Your task to perform on an android device: turn on translation in the chrome app Image 0: 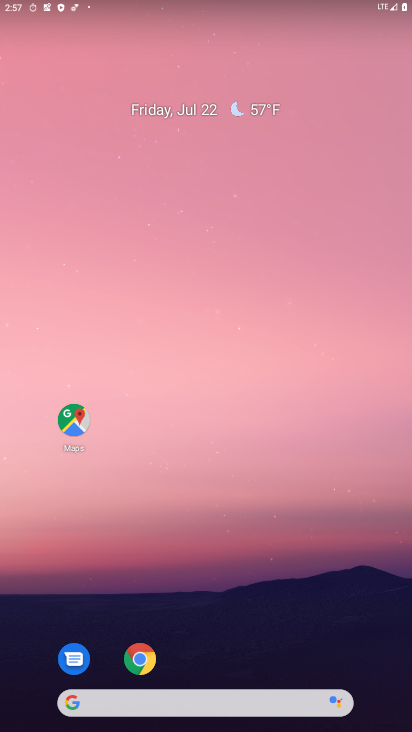
Step 0: click (153, 657)
Your task to perform on an android device: turn on translation in the chrome app Image 1: 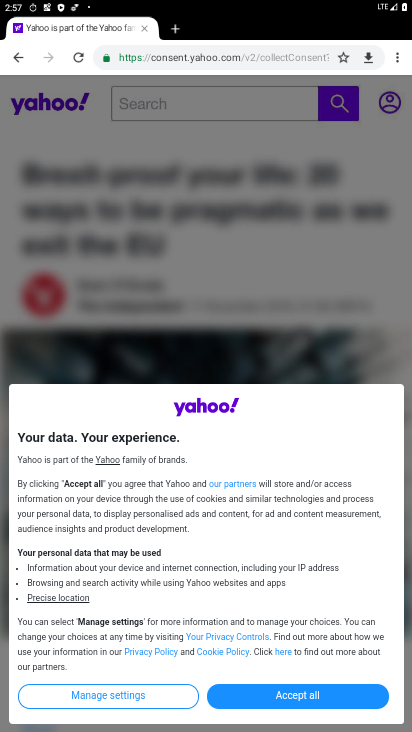
Step 1: click (393, 63)
Your task to perform on an android device: turn on translation in the chrome app Image 2: 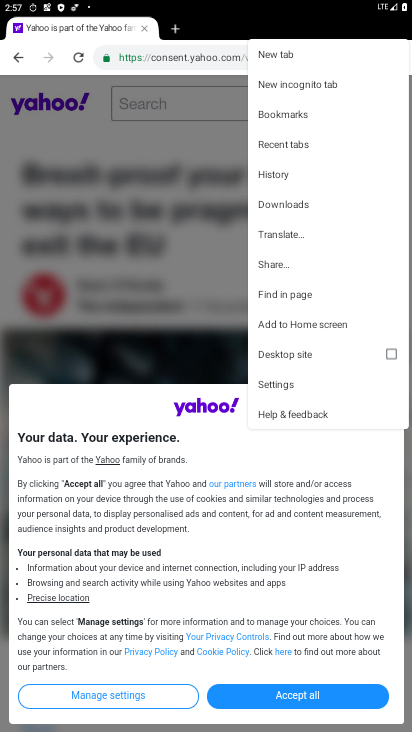
Step 2: click (282, 380)
Your task to perform on an android device: turn on translation in the chrome app Image 3: 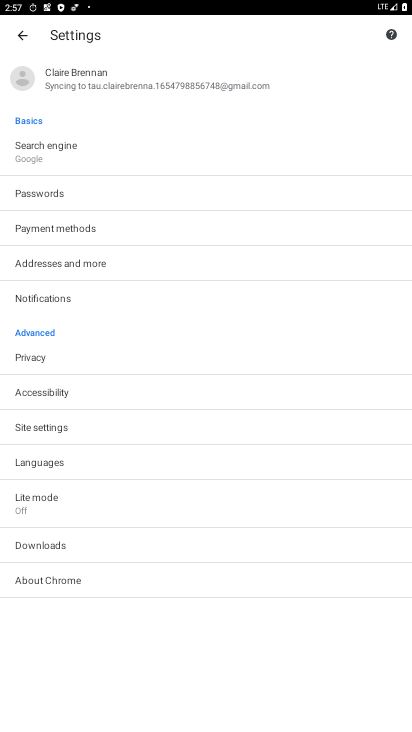
Step 3: click (52, 469)
Your task to perform on an android device: turn on translation in the chrome app Image 4: 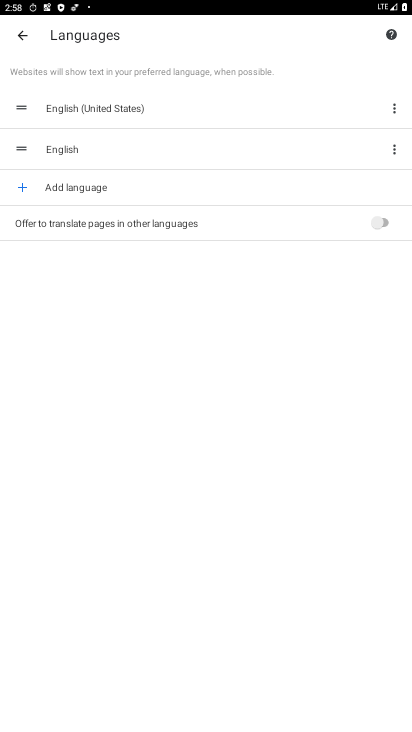
Step 4: click (381, 216)
Your task to perform on an android device: turn on translation in the chrome app Image 5: 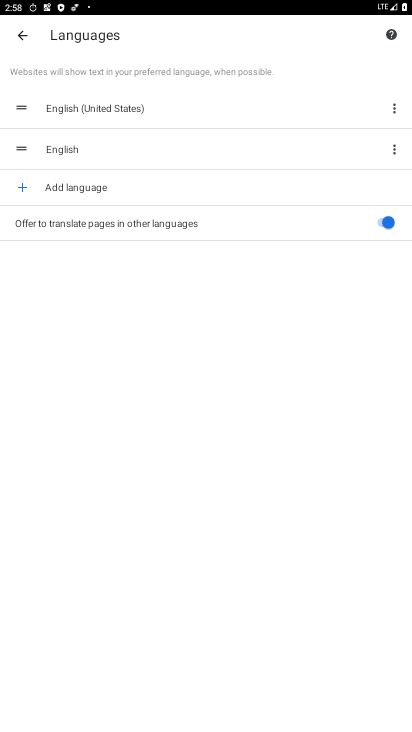
Step 5: task complete